Your task to perform on an android device: turn off priority inbox in the gmail app Image 0: 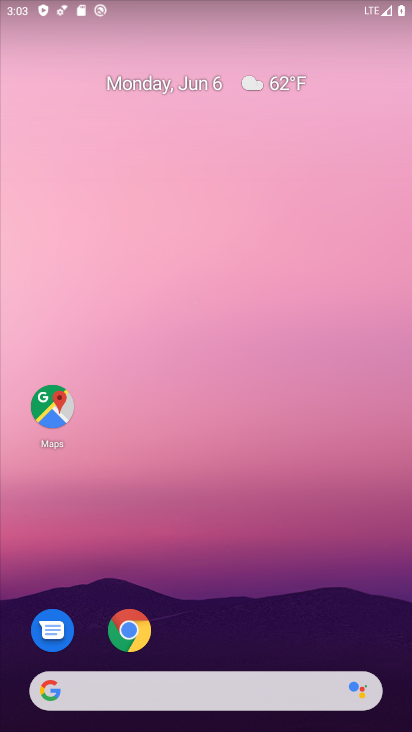
Step 0: press home button
Your task to perform on an android device: turn off priority inbox in the gmail app Image 1: 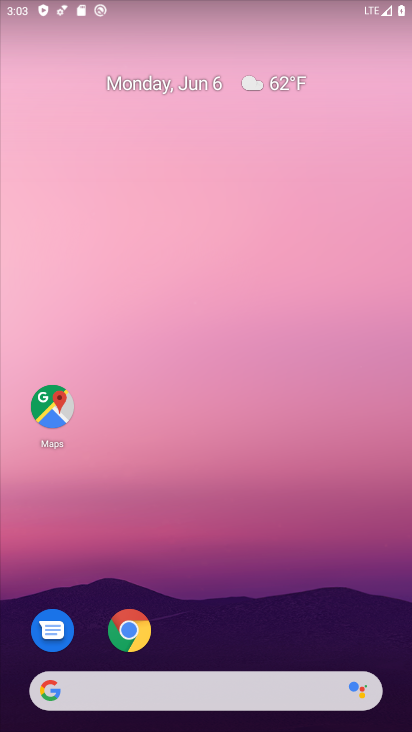
Step 1: drag from (306, 637) to (249, 4)
Your task to perform on an android device: turn off priority inbox in the gmail app Image 2: 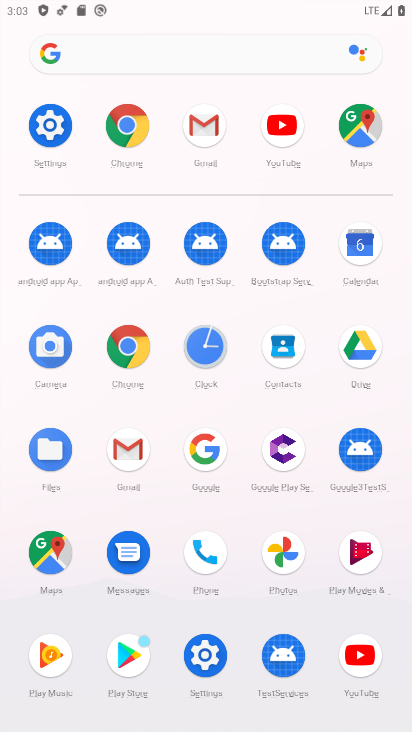
Step 2: click (191, 159)
Your task to perform on an android device: turn off priority inbox in the gmail app Image 3: 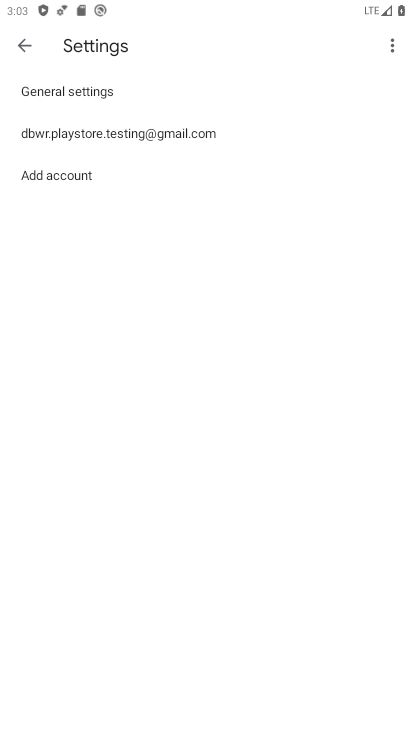
Step 3: click (91, 134)
Your task to perform on an android device: turn off priority inbox in the gmail app Image 4: 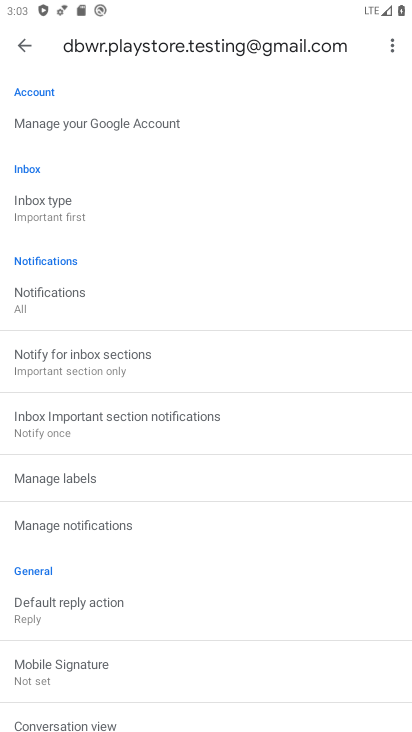
Step 4: click (98, 217)
Your task to perform on an android device: turn off priority inbox in the gmail app Image 5: 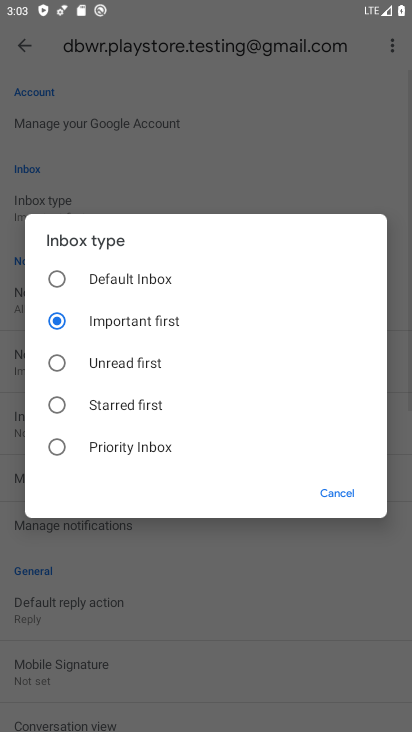
Step 5: click (96, 278)
Your task to perform on an android device: turn off priority inbox in the gmail app Image 6: 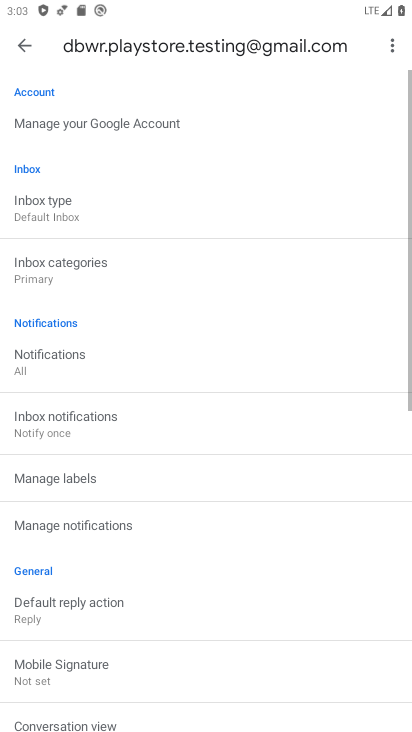
Step 6: task complete